Your task to perform on an android device: turn off improve location accuracy Image 0: 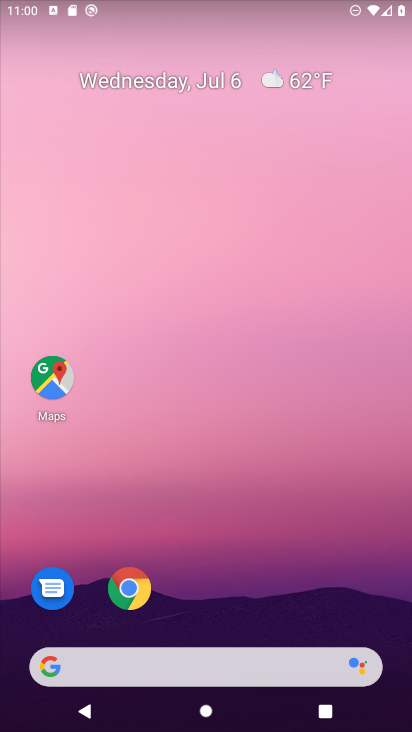
Step 0: drag from (354, 605) to (348, 146)
Your task to perform on an android device: turn off improve location accuracy Image 1: 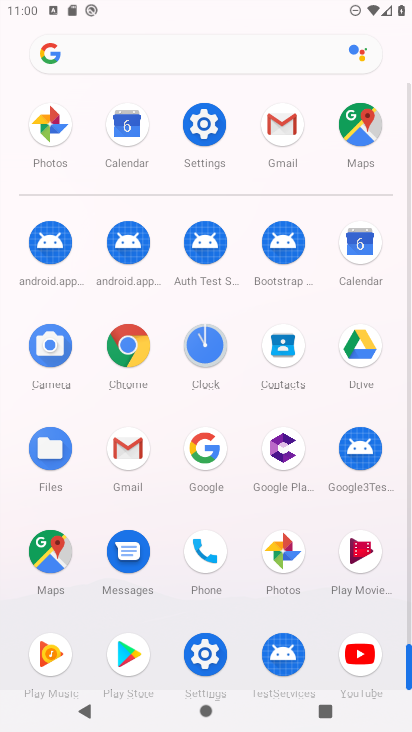
Step 1: click (203, 655)
Your task to perform on an android device: turn off improve location accuracy Image 2: 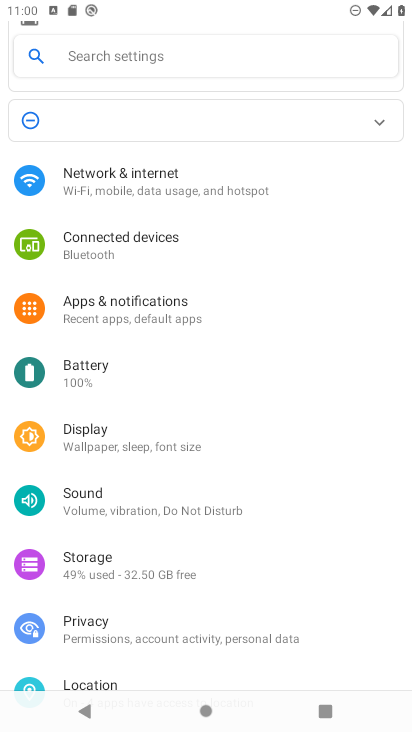
Step 2: drag from (331, 643) to (310, 237)
Your task to perform on an android device: turn off improve location accuracy Image 3: 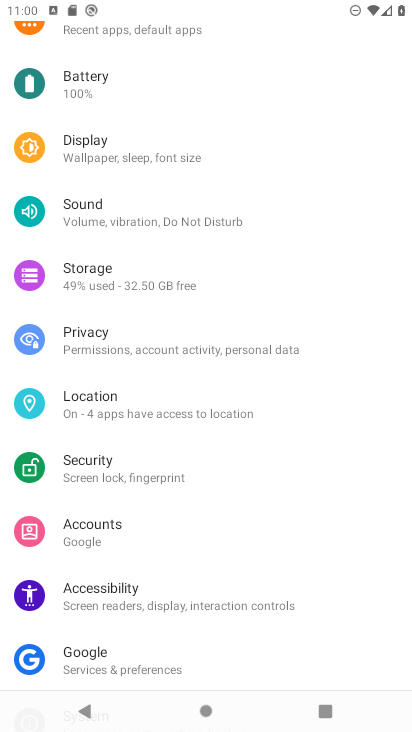
Step 3: click (95, 413)
Your task to perform on an android device: turn off improve location accuracy Image 4: 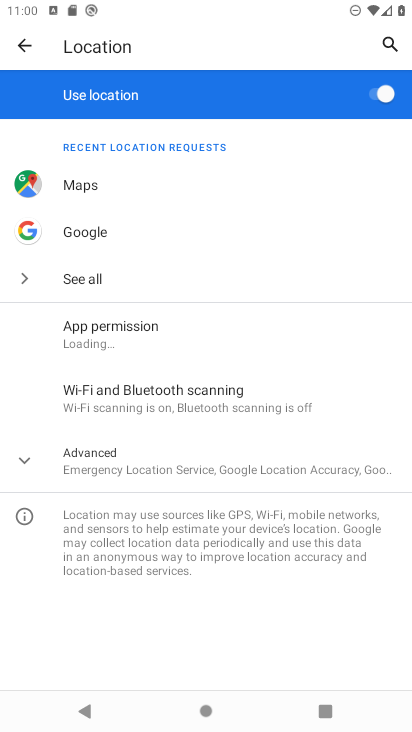
Step 4: click (39, 465)
Your task to perform on an android device: turn off improve location accuracy Image 5: 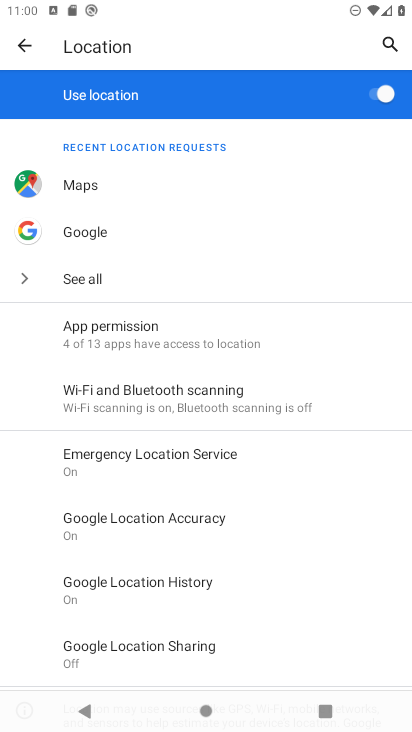
Step 5: click (153, 520)
Your task to perform on an android device: turn off improve location accuracy Image 6: 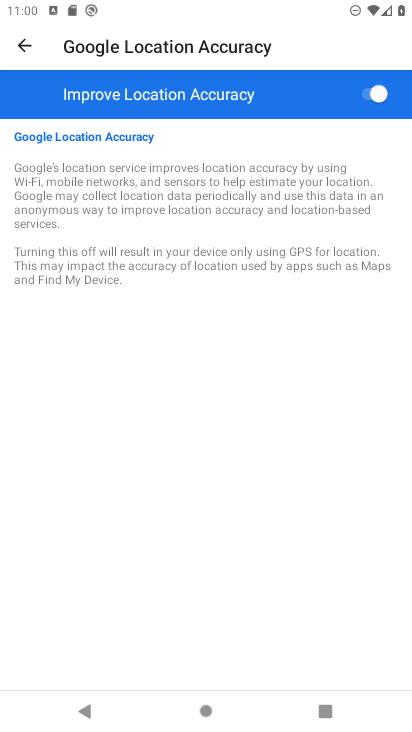
Step 6: click (364, 91)
Your task to perform on an android device: turn off improve location accuracy Image 7: 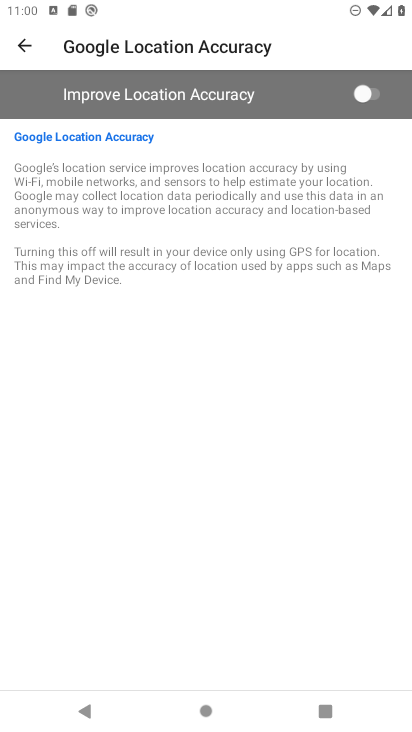
Step 7: task complete